Your task to perform on an android device: Go to network settings Image 0: 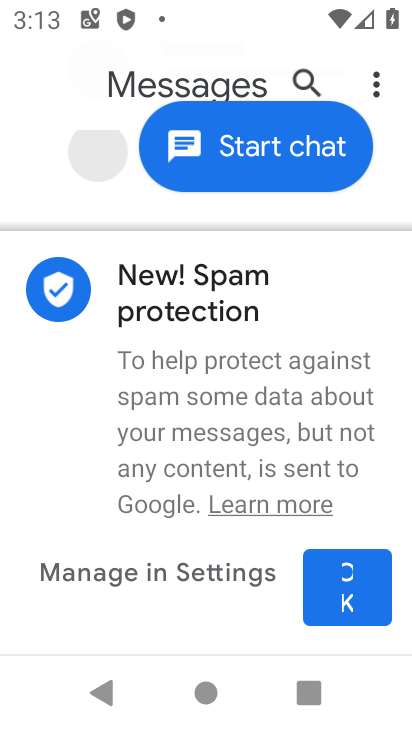
Step 0: press home button
Your task to perform on an android device: Go to network settings Image 1: 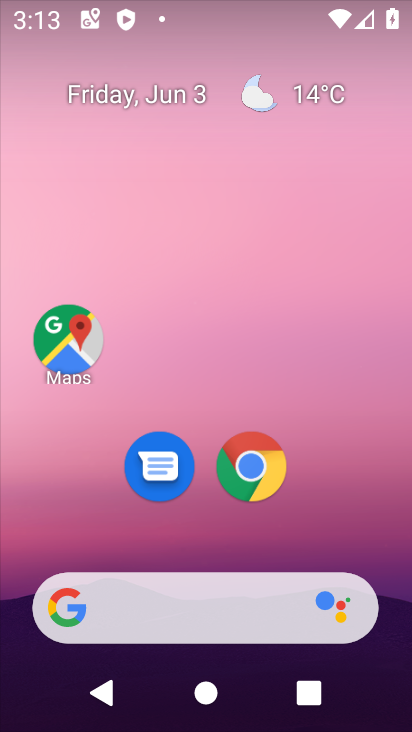
Step 1: drag from (369, 528) to (386, 76)
Your task to perform on an android device: Go to network settings Image 2: 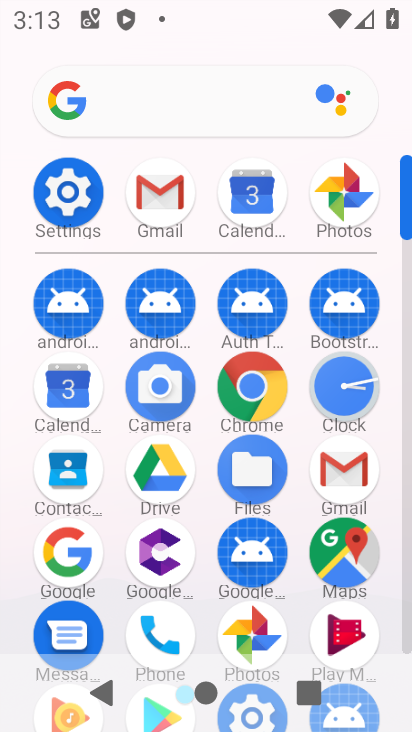
Step 2: click (69, 193)
Your task to perform on an android device: Go to network settings Image 3: 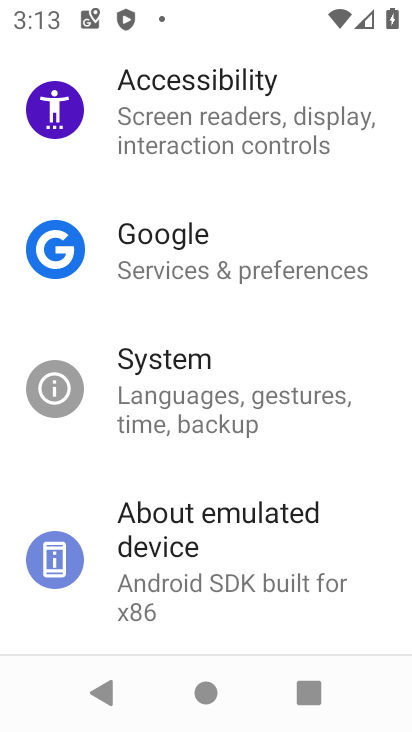
Step 3: drag from (203, 160) to (181, 588)
Your task to perform on an android device: Go to network settings Image 4: 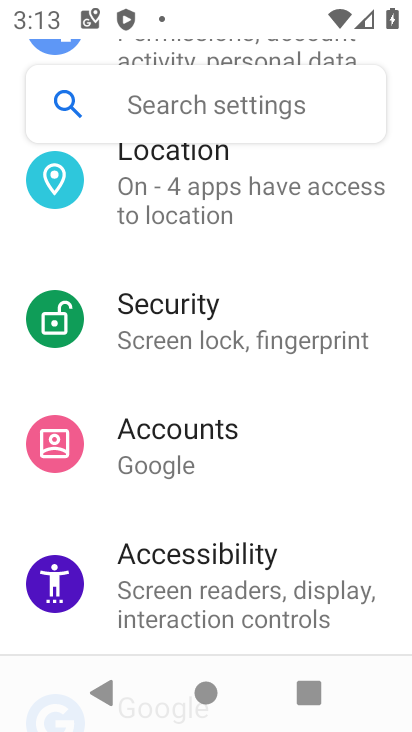
Step 4: drag from (311, 248) to (311, 593)
Your task to perform on an android device: Go to network settings Image 5: 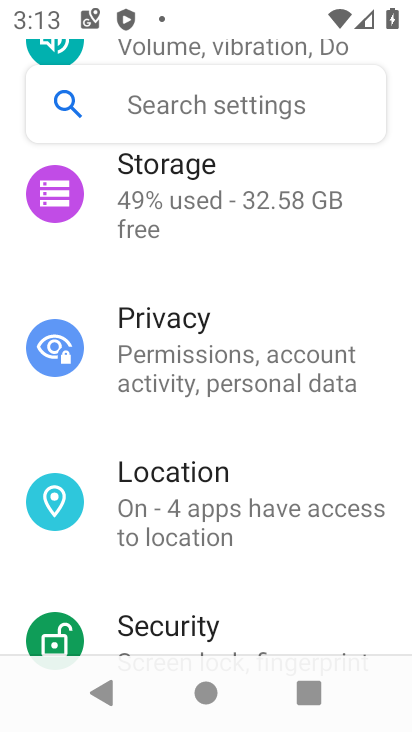
Step 5: drag from (363, 254) to (365, 579)
Your task to perform on an android device: Go to network settings Image 6: 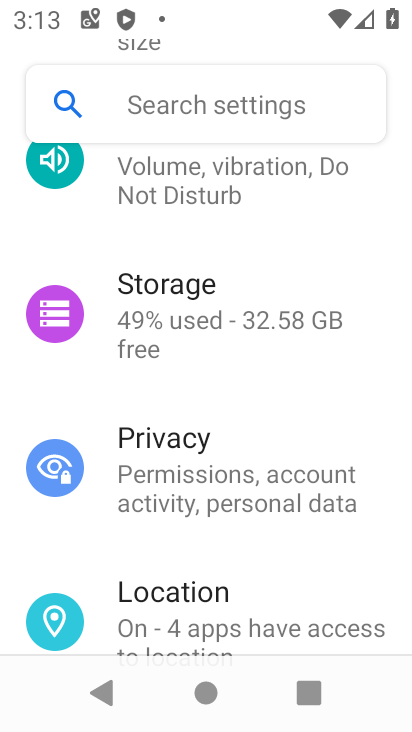
Step 6: drag from (391, 239) to (346, 576)
Your task to perform on an android device: Go to network settings Image 7: 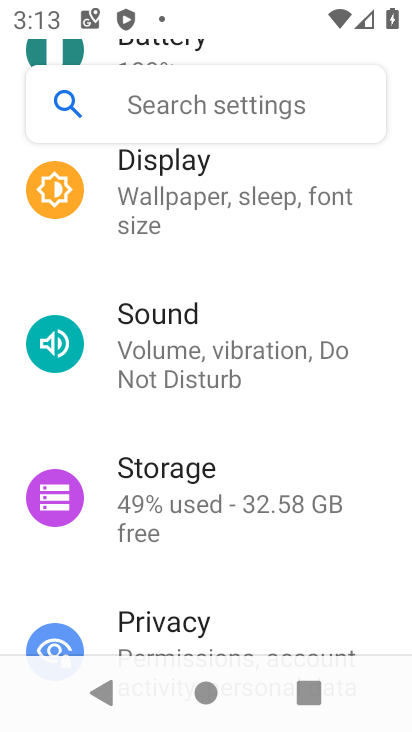
Step 7: drag from (378, 248) to (335, 590)
Your task to perform on an android device: Go to network settings Image 8: 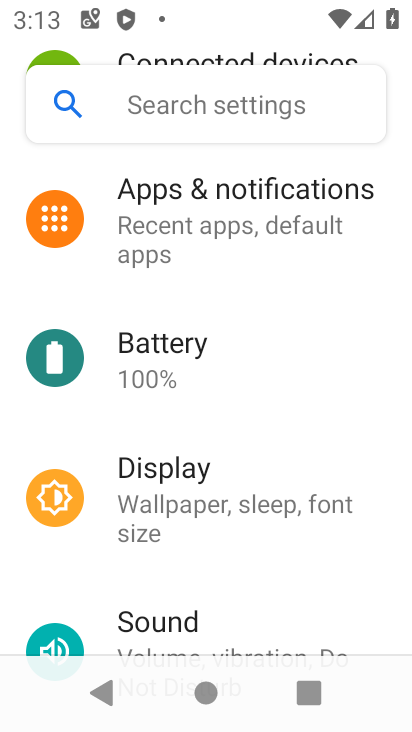
Step 8: drag from (376, 225) to (306, 556)
Your task to perform on an android device: Go to network settings Image 9: 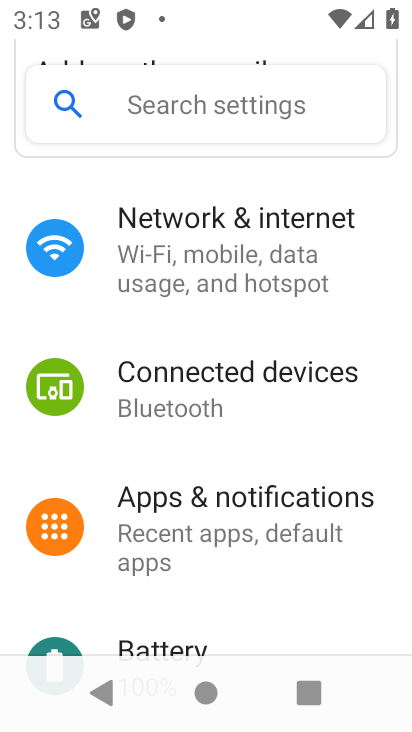
Step 9: click (335, 222)
Your task to perform on an android device: Go to network settings Image 10: 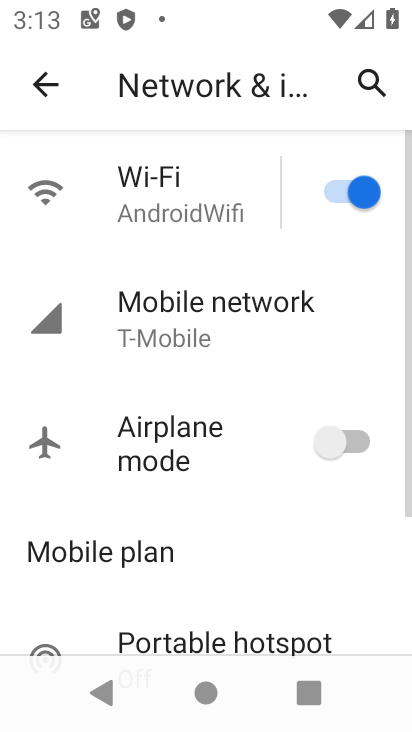
Step 10: task complete